Your task to perform on an android device: delete the emails in spam in the gmail app Image 0: 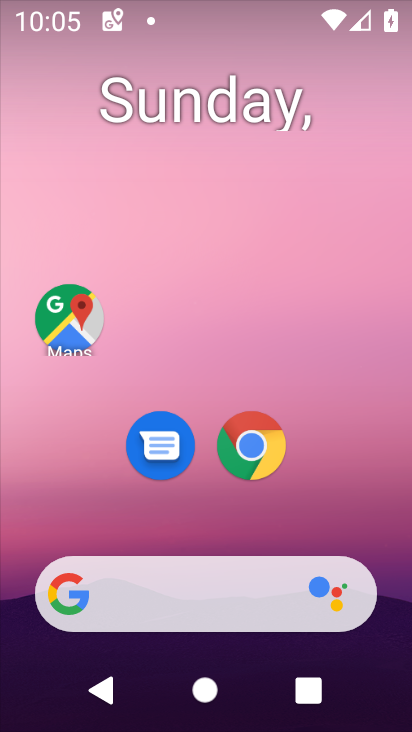
Step 0: press home button
Your task to perform on an android device: delete the emails in spam in the gmail app Image 1: 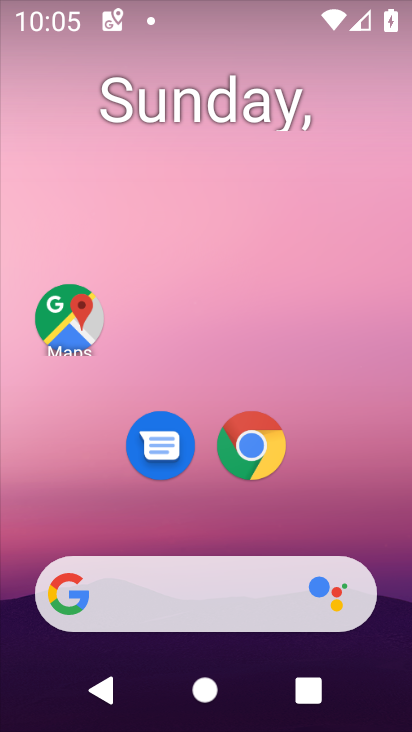
Step 1: drag from (365, 525) to (365, 140)
Your task to perform on an android device: delete the emails in spam in the gmail app Image 2: 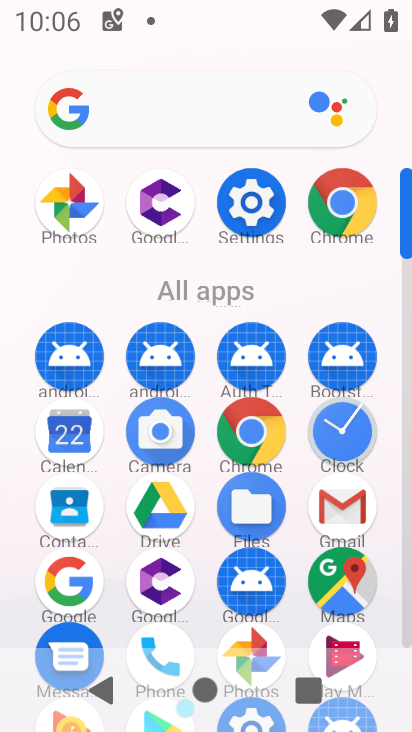
Step 2: click (353, 511)
Your task to perform on an android device: delete the emails in spam in the gmail app Image 3: 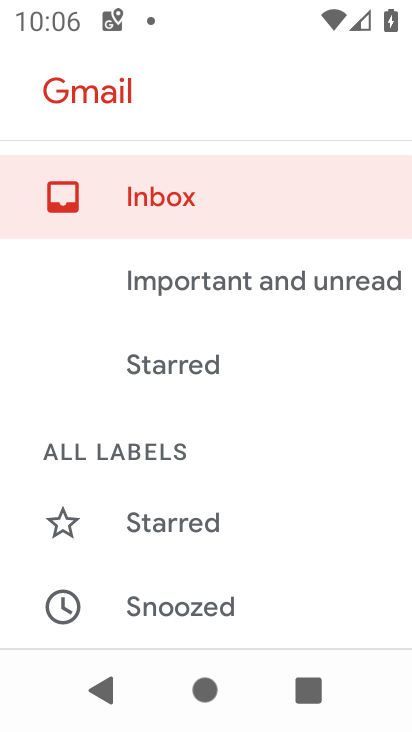
Step 3: task complete